Your task to perform on an android device: turn off wifi Image 0: 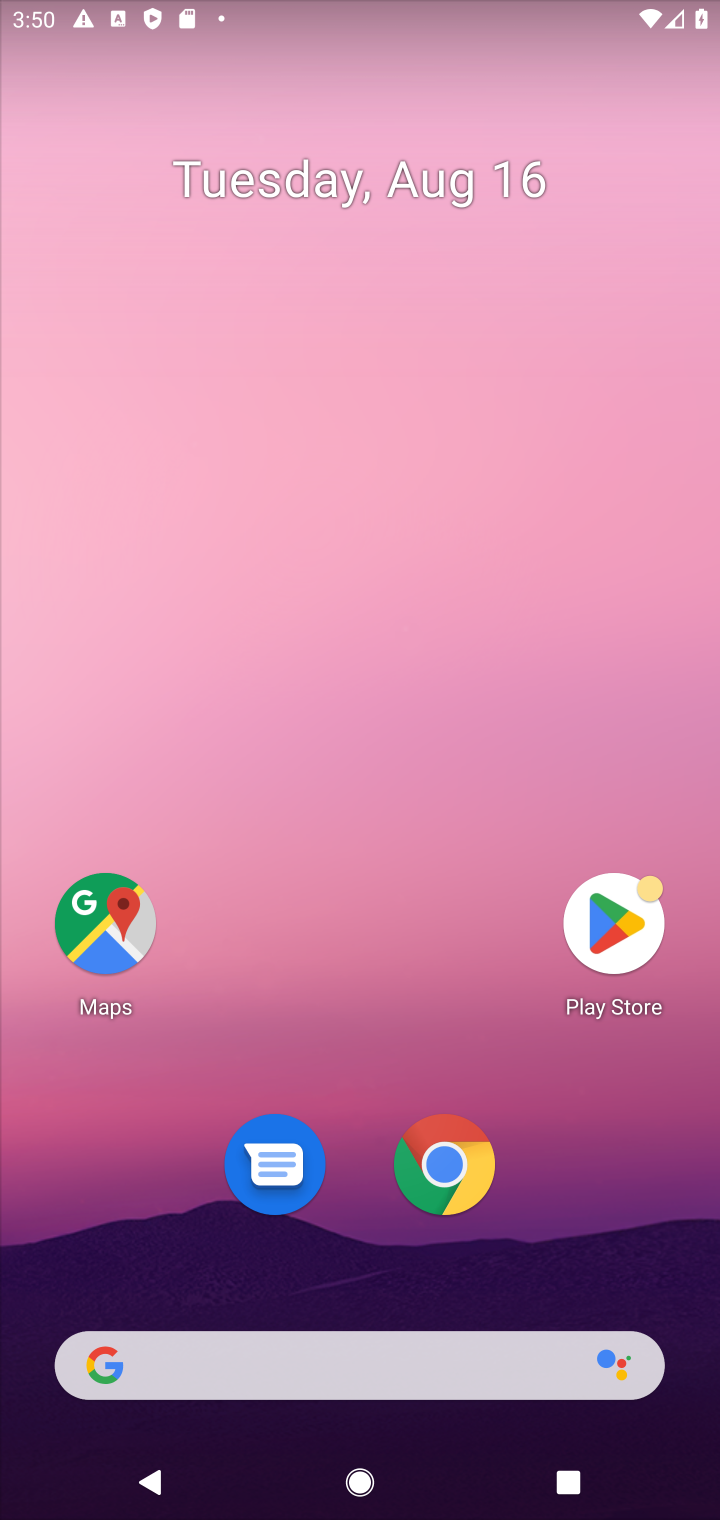
Step 0: drag from (361, 23) to (264, 1117)
Your task to perform on an android device: turn off wifi Image 1: 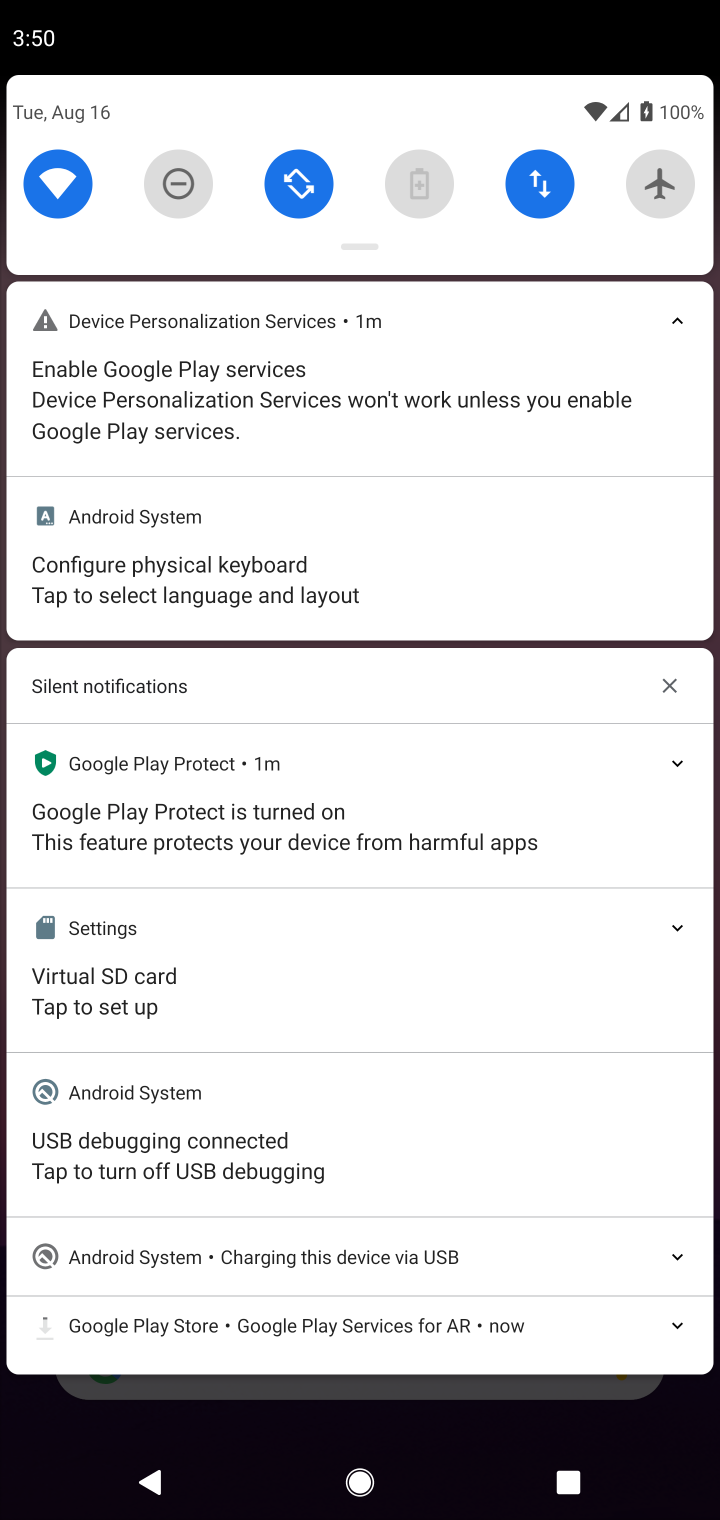
Step 1: click (57, 202)
Your task to perform on an android device: turn off wifi Image 2: 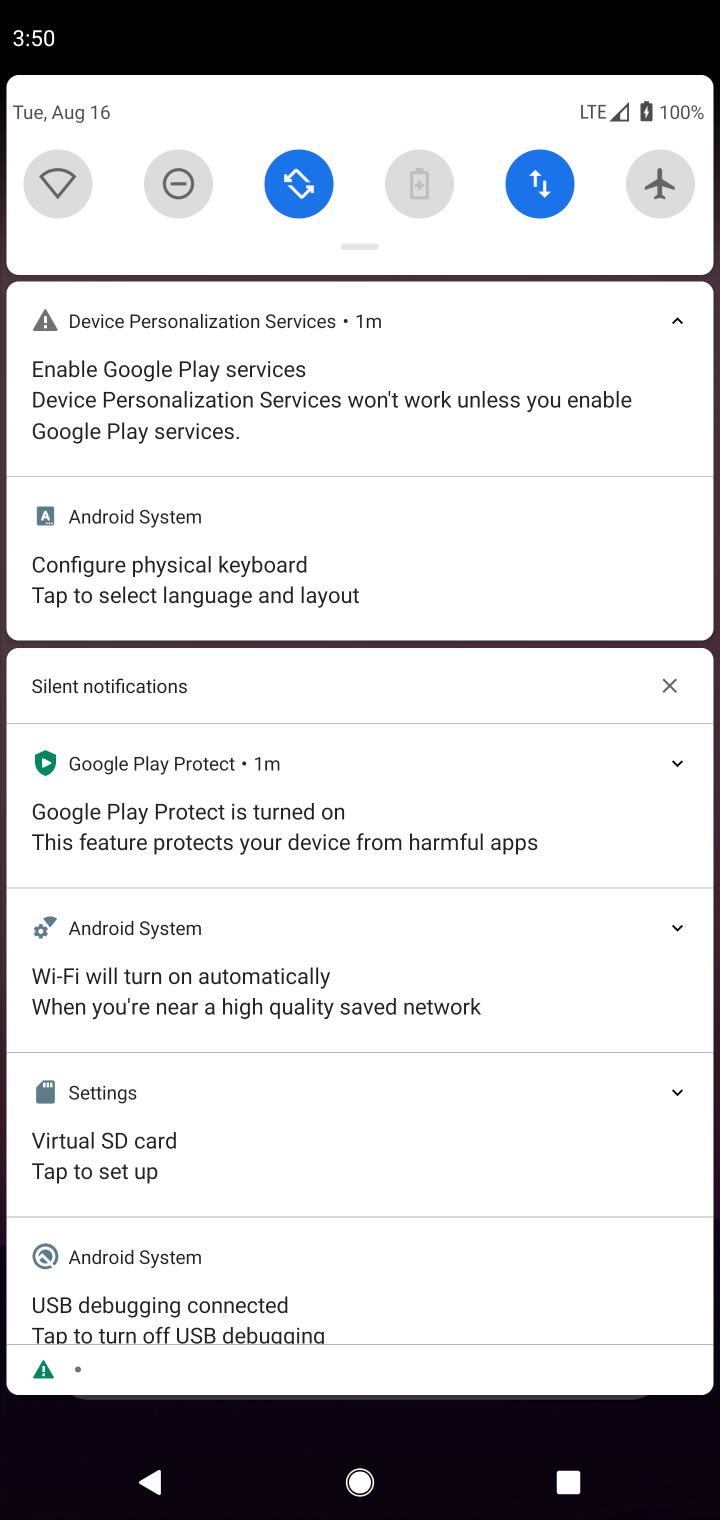
Step 2: task complete